Your task to perform on an android device: turn on the 12-hour format for clock Image 0: 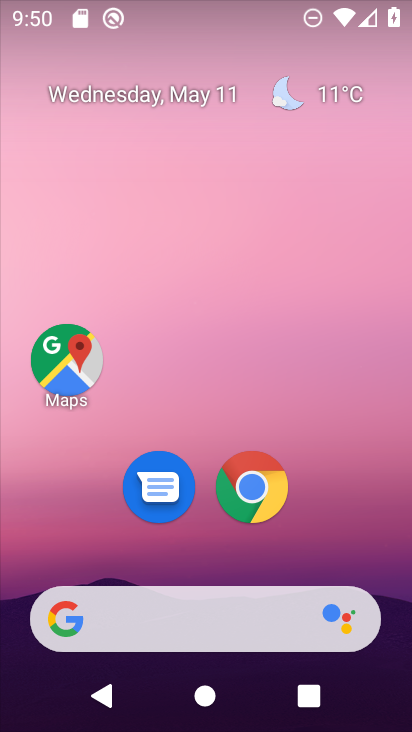
Step 0: drag from (290, 651) to (251, 311)
Your task to perform on an android device: turn on the 12-hour format for clock Image 1: 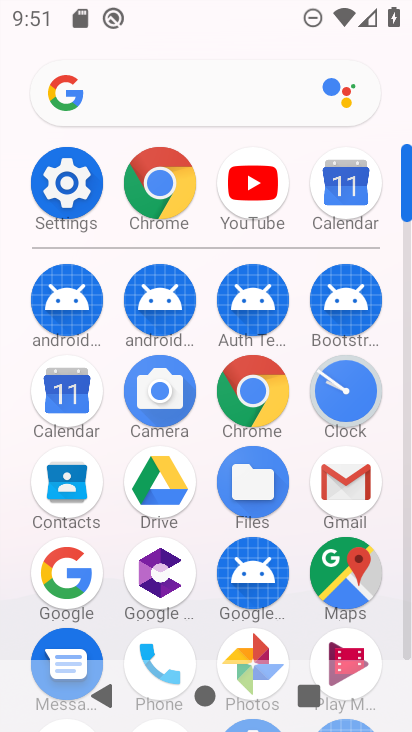
Step 1: click (355, 381)
Your task to perform on an android device: turn on the 12-hour format for clock Image 2: 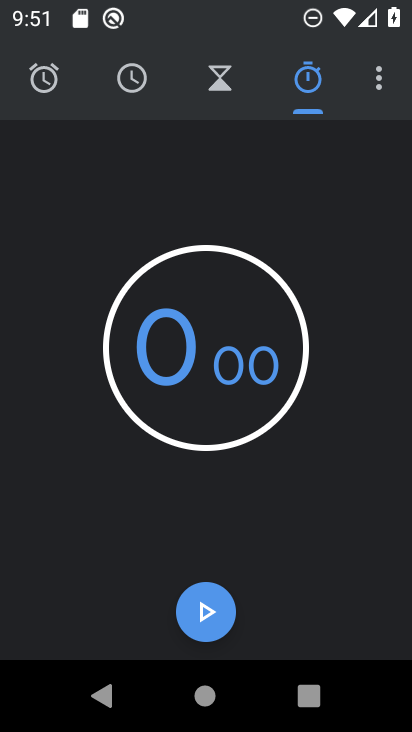
Step 2: click (383, 82)
Your task to perform on an android device: turn on the 12-hour format for clock Image 3: 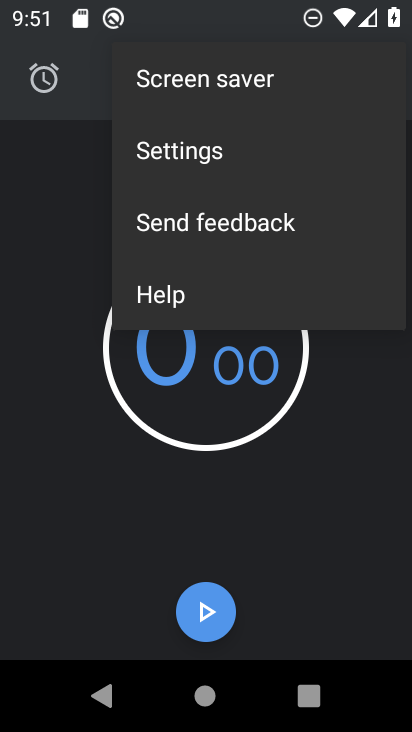
Step 3: click (254, 169)
Your task to perform on an android device: turn on the 12-hour format for clock Image 4: 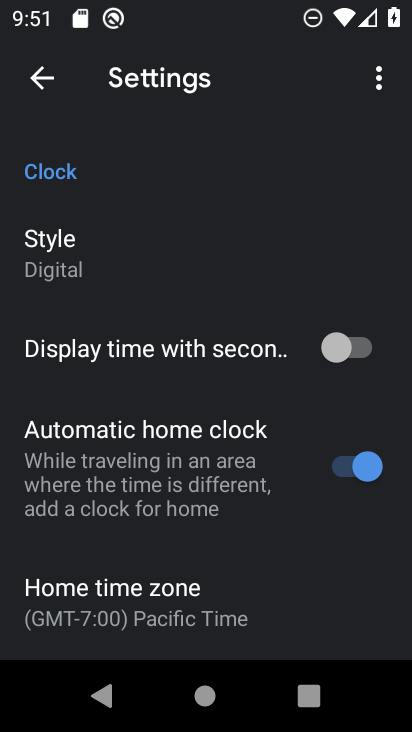
Step 4: drag from (160, 576) to (130, 368)
Your task to perform on an android device: turn on the 12-hour format for clock Image 5: 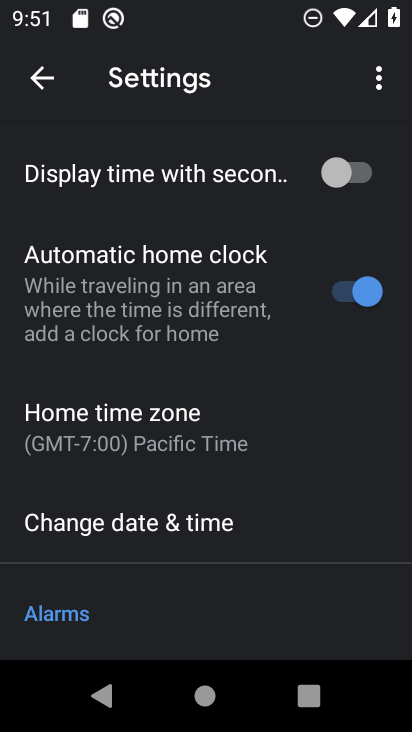
Step 5: click (161, 526)
Your task to perform on an android device: turn on the 12-hour format for clock Image 6: 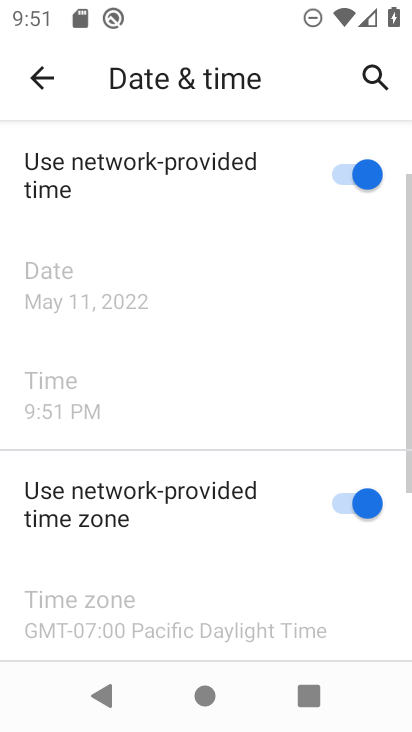
Step 6: drag from (264, 548) to (287, 313)
Your task to perform on an android device: turn on the 12-hour format for clock Image 7: 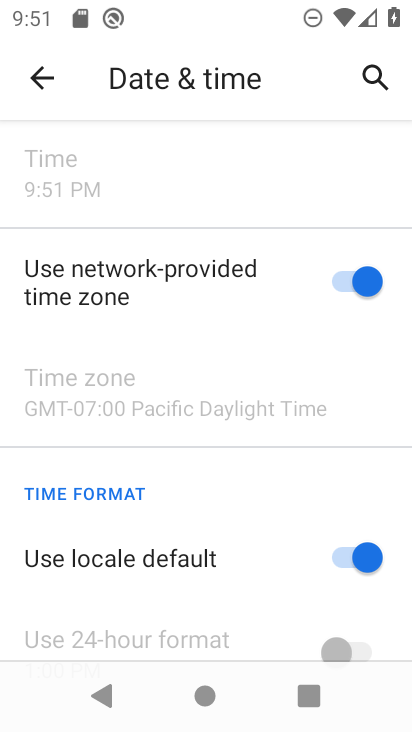
Step 7: click (348, 560)
Your task to perform on an android device: turn on the 12-hour format for clock Image 8: 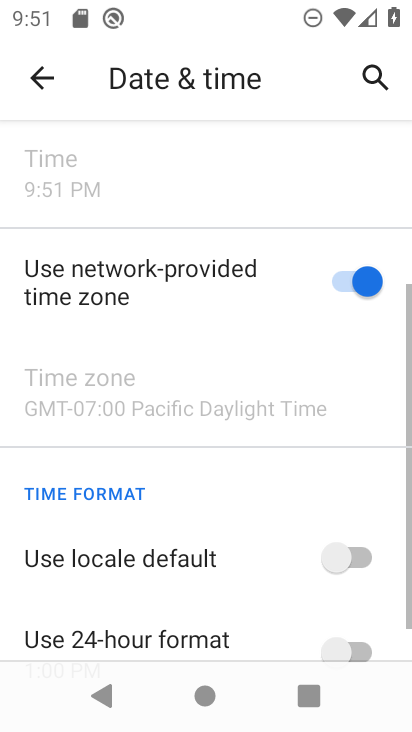
Step 8: click (344, 634)
Your task to perform on an android device: turn on the 12-hour format for clock Image 9: 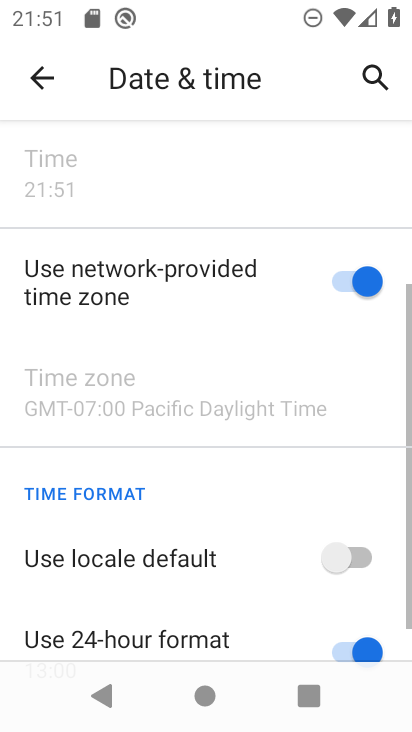
Step 9: click (349, 637)
Your task to perform on an android device: turn on the 12-hour format for clock Image 10: 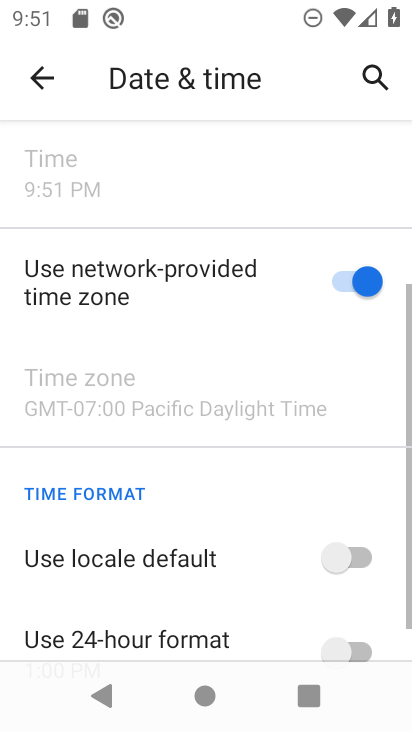
Step 10: task complete